Your task to perform on an android device: turn off priority inbox in the gmail app Image 0: 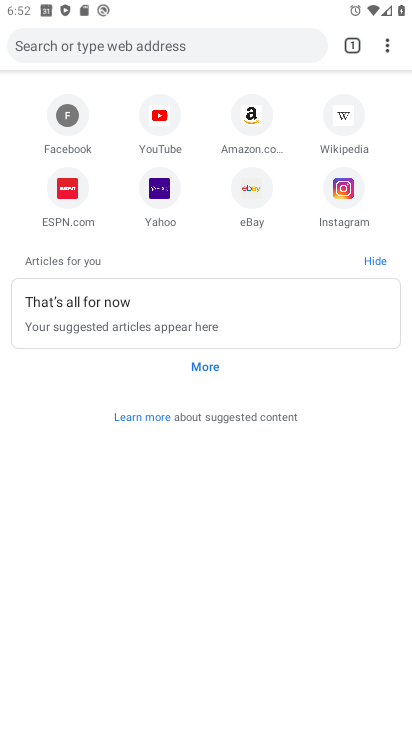
Step 0: press home button
Your task to perform on an android device: turn off priority inbox in the gmail app Image 1: 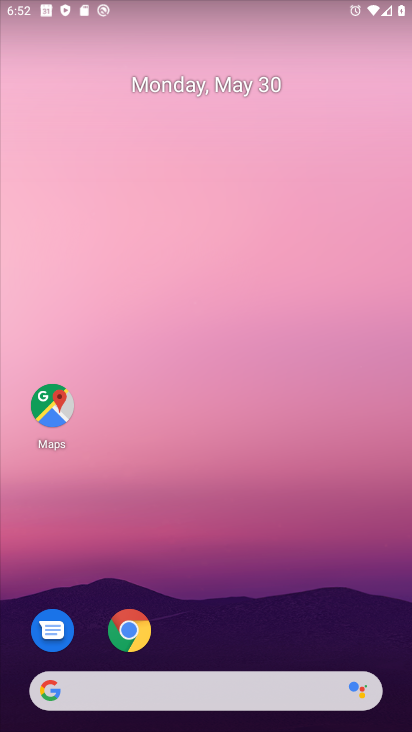
Step 1: drag from (340, 652) to (257, 30)
Your task to perform on an android device: turn off priority inbox in the gmail app Image 2: 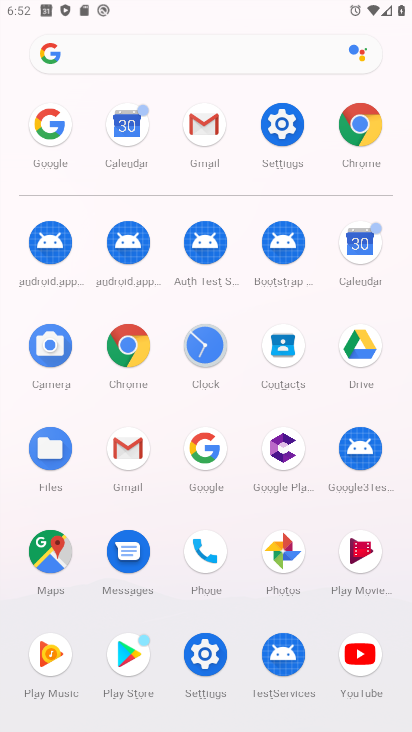
Step 2: click (217, 144)
Your task to perform on an android device: turn off priority inbox in the gmail app Image 3: 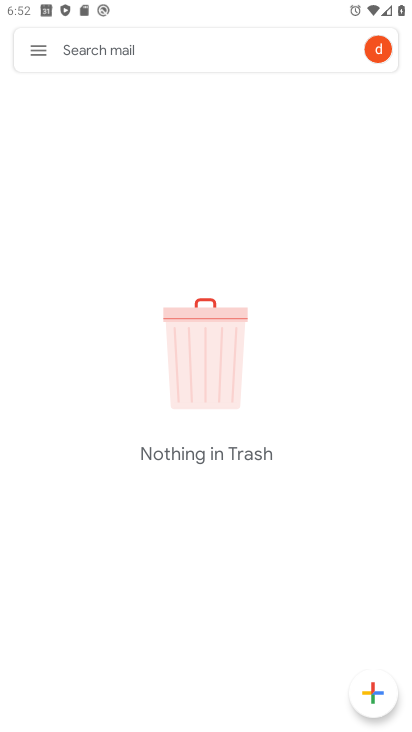
Step 3: click (39, 49)
Your task to perform on an android device: turn off priority inbox in the gmail app Image 4: 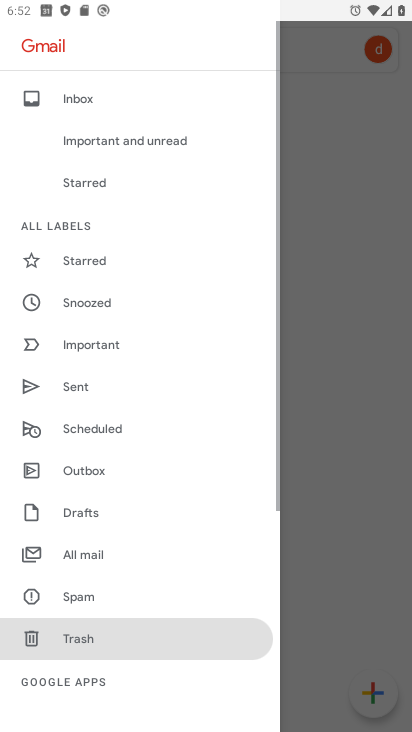
Step 4: drag from (103, 631) to (139, 54)
Your task to perform on an android device: turn off priority inbox in the gmail app Image 5: 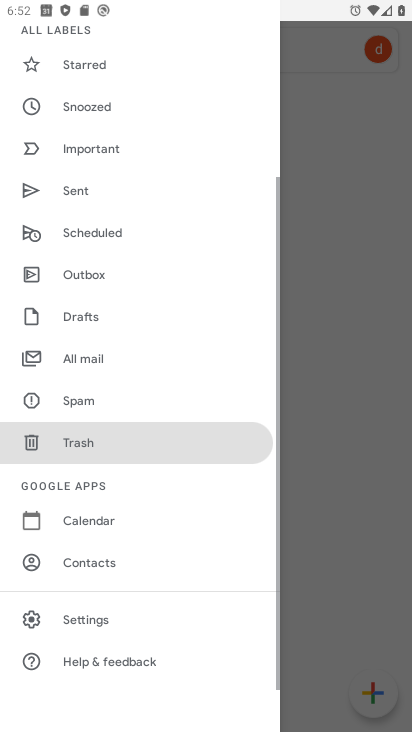
Step 5: click (112, 617)
Your task to perform on an android device: turn off priority inbox in the gmail app Image 6: 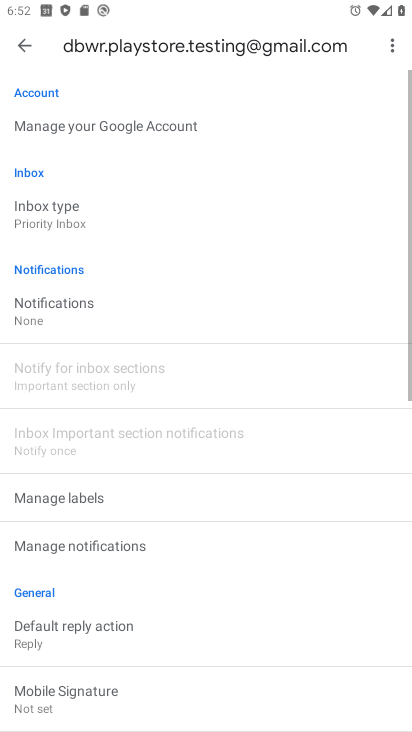
Step 6: click (85, 207)
Your task to perform on an android device: turn off priority inbox in the gmail app Image 7: 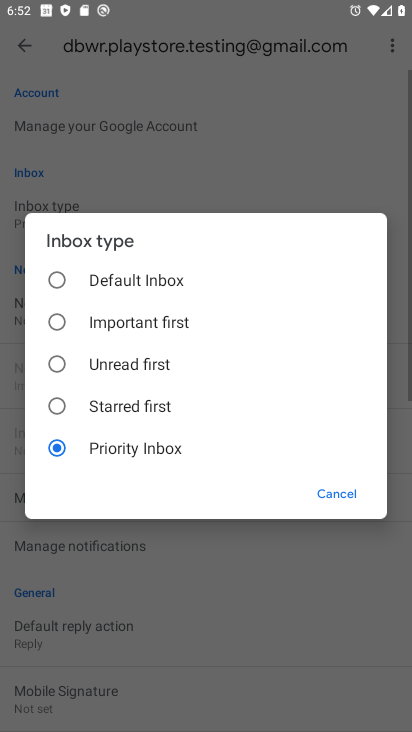
Step 7: click (67, 289)
Your task to perform on an android device: turn off priority inbox in the gmail app Image 8: 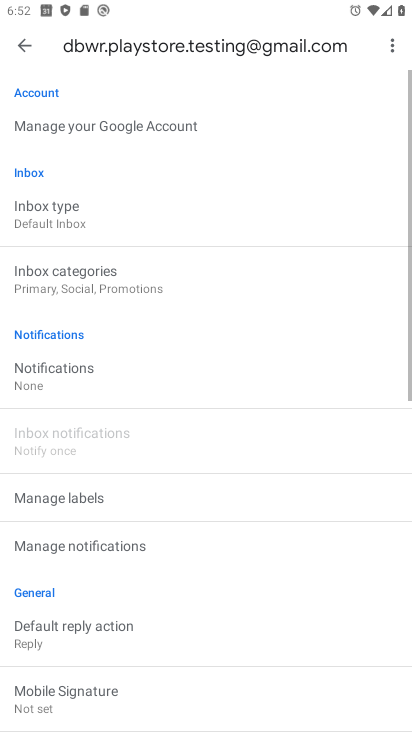
Step 8: task complete